Your task to perform on an android device: move a message to another label in the gmail app Image 0: 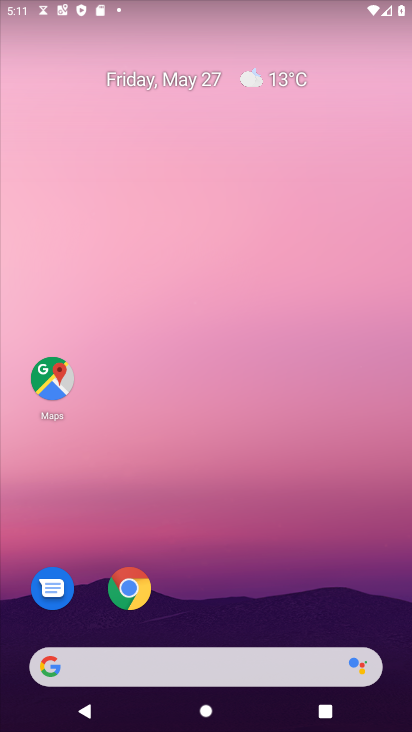
Step 0: drag from (226, 574) to (235, 116)
Your task to perform on an android device: move a message to another label in the gmail app Image 1: 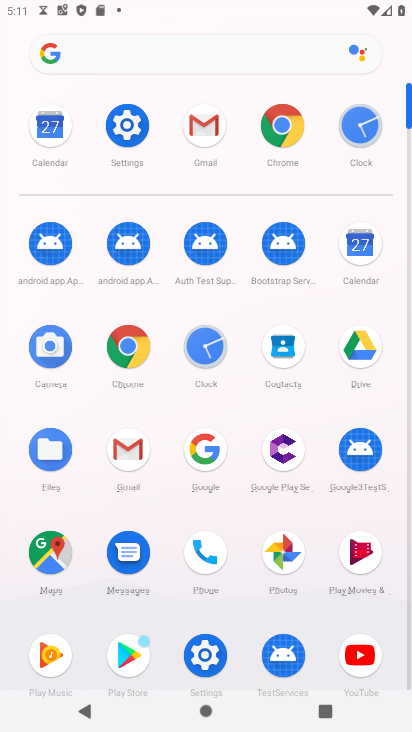
Step 1: click (199, 127)
Your task to perform on an android device: move a message to another label in the gmail app Image 2: 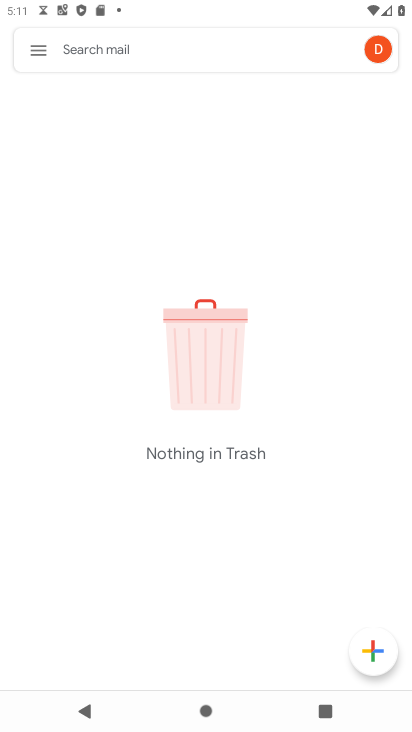
Step 2: click (41, 51)
Your task to perform on an android device: move a message to another label in the gmail app Image 3: 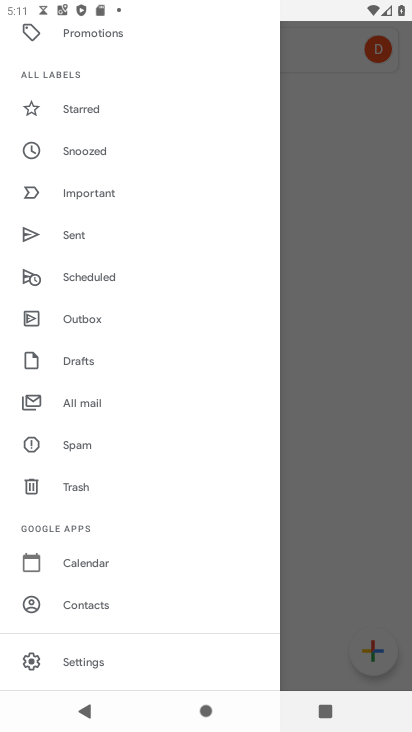
Step 3: click (74, 402)
Your task to perform on an android device: move a message to another label in the gmail app Image 4: 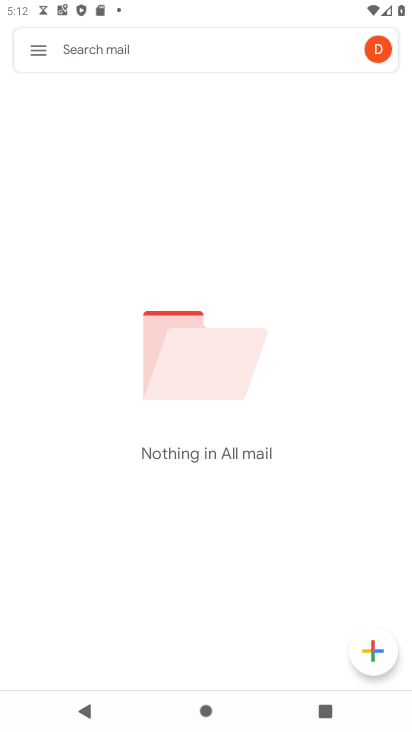
Step 4: task complete